Your task to perform on an android device: refresh tabs in the chrome app Image 0: 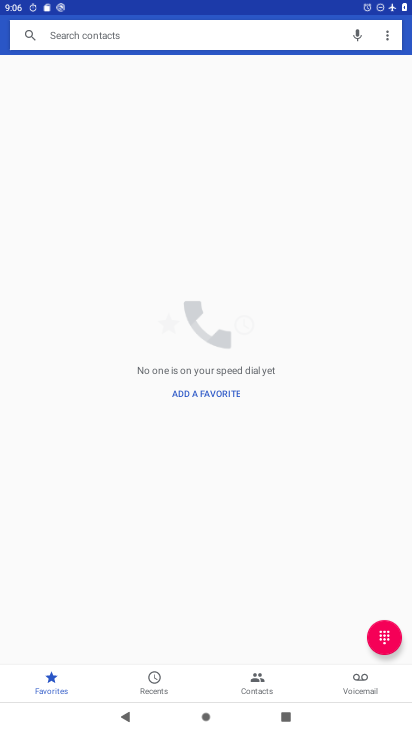
Step 0: press home button
Your task to perform on an android device: refresh tabs in the chrome app Image 1: 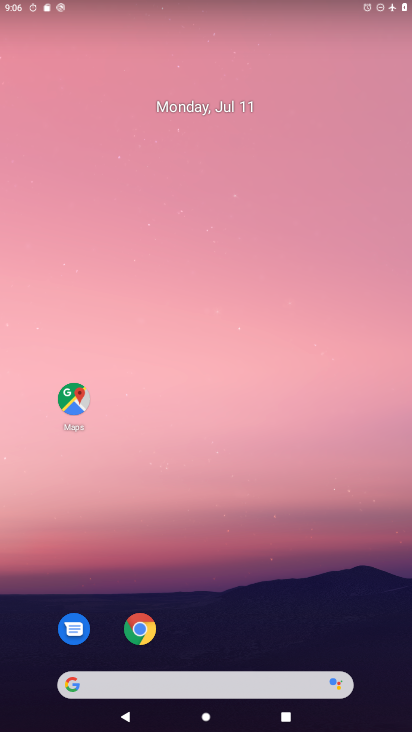
Step 1: click (140, 626)
Your task to perform on an android device: refresh tabs in the chrome app Image 2: 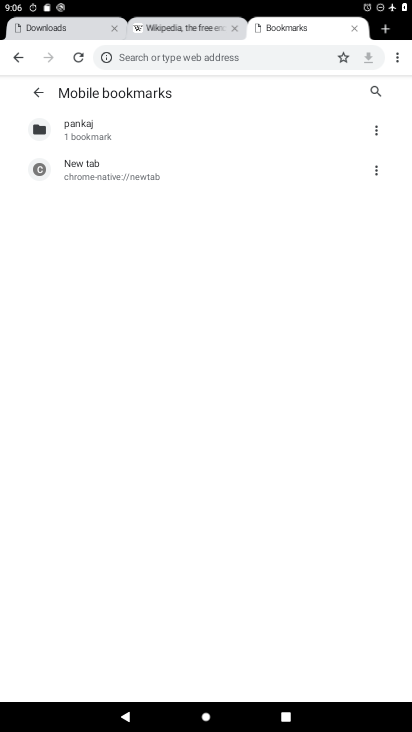
Step 2: click (74, 62)
Your task to perform on an android device: refresh tabs in the chrome app Image 3: 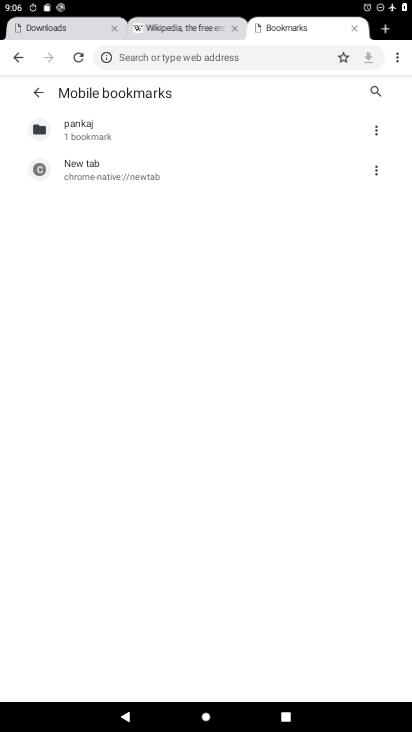
Step 3: task complete